Your task to perform on an android device: turn on improve location accuracy Image 0: 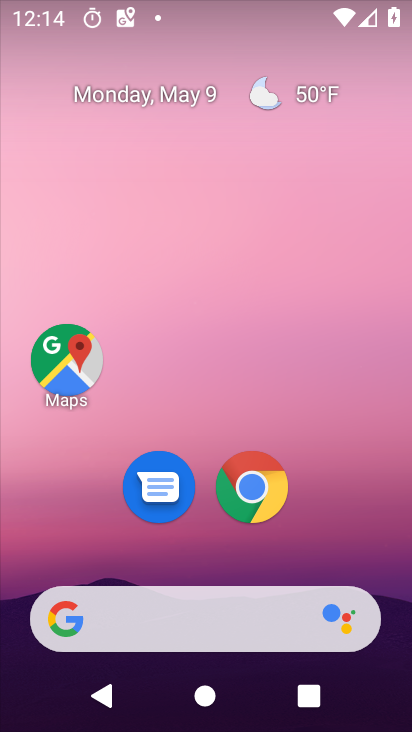
Step 0: drag from (364, 453) to (388, 2)
Your task to perform on an android device: turn on improve location accuracy Image 1: 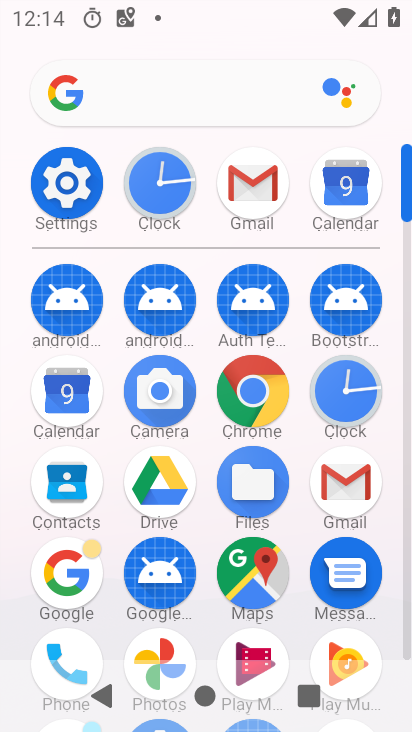
Step 1: click (84, 208)
Your task to perform on an android device: turn on improve location accuracy Image 2: 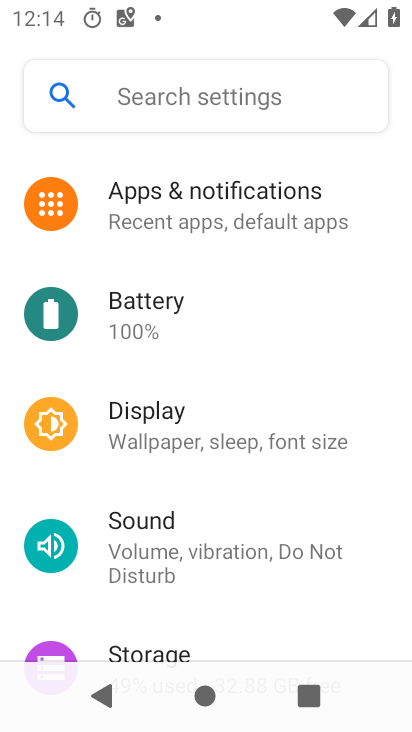
Step 2: drag from (272, 589) to (327, 217)
Your task to perform on an android device: turn on improve location accuracy Image 3: 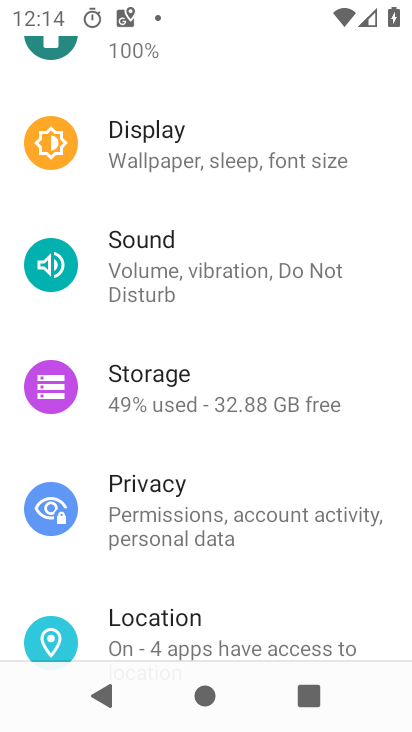
Step 3: click (198, 642)
Your task to perform on an android device: turn on improve location accuracy Image 4: 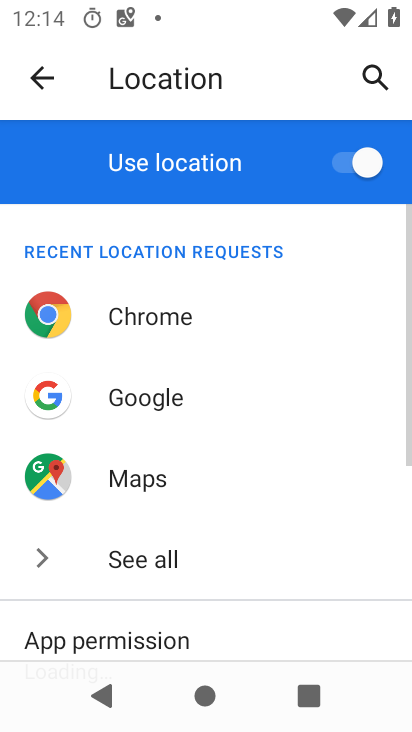
Step 4: drag from (258, 573) to (317, 216)
Your task to perform on an android device: turn on improve location accuracy Image 5: 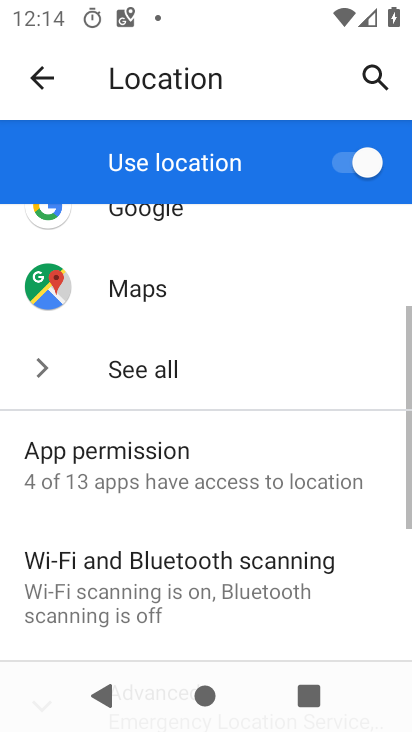
Step 5: drag from (286, 615) to (374, 260)
Your task to perform on an android device: turn on improve location accuracy Image 6: 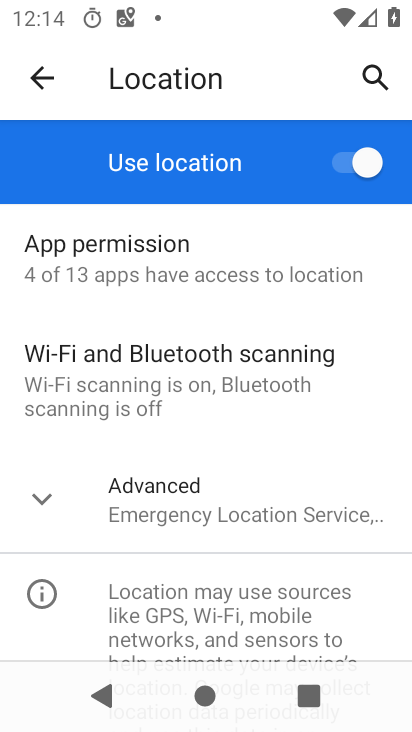
Step 6: click (43, 496)
Your task to perform on an android device: turn on improve location accuracy Image 7: 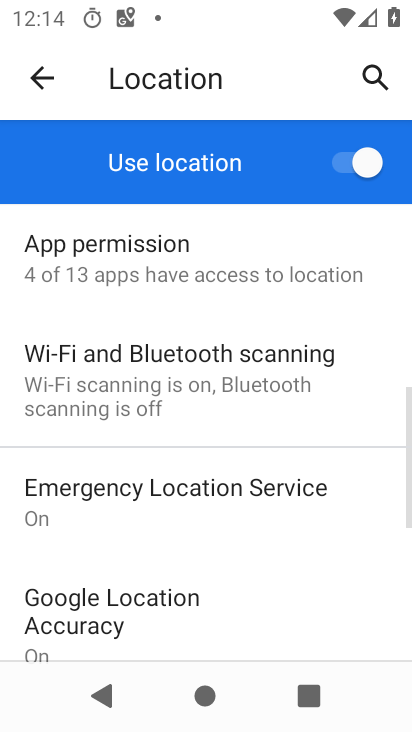
Step 7: drag from (223, 628) to (273, 340)
Your task to perform on an android device: turn on improve location accuracy Image 8: 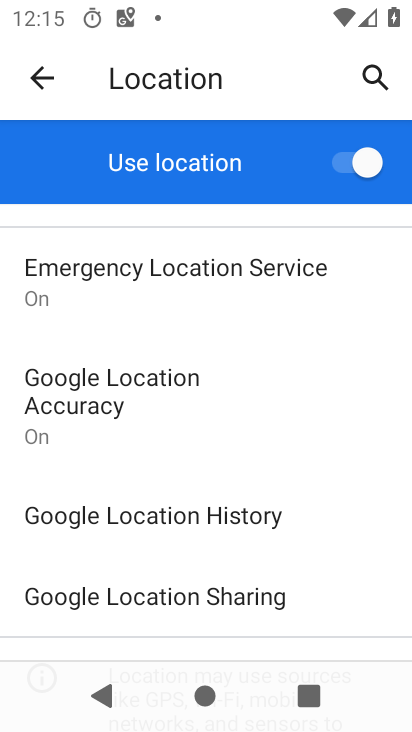
Step 8: click (172, 383)
Your task to perform on an android device: turn on improve location accuracy Image 9: 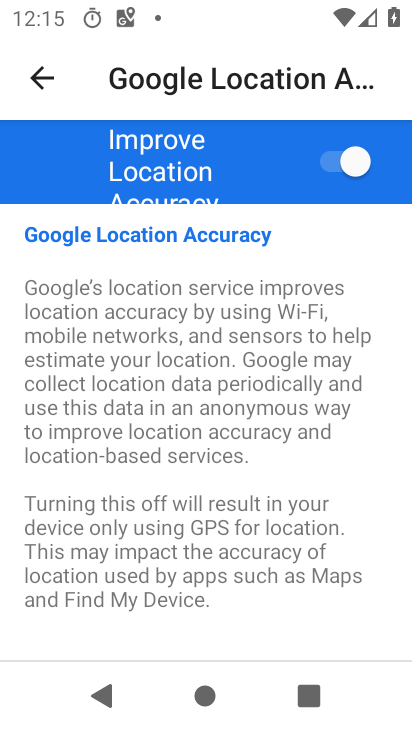
Step 9: task complete